Your task to perform on an android device: open wifi settings Image 0: 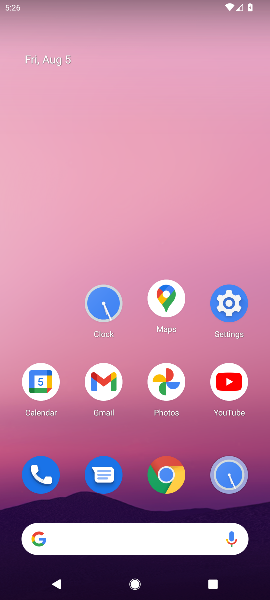
Step 0: click (239, 302)
Your task to perform on an android device: open wifi settings Image 1: 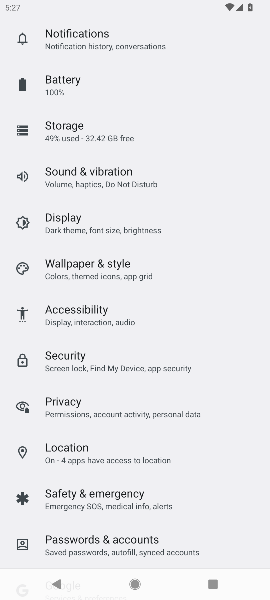
Step 1: drag from (214, 129) to (217, 456)
Your task to perform on an android device: open wifi settings Image 2: 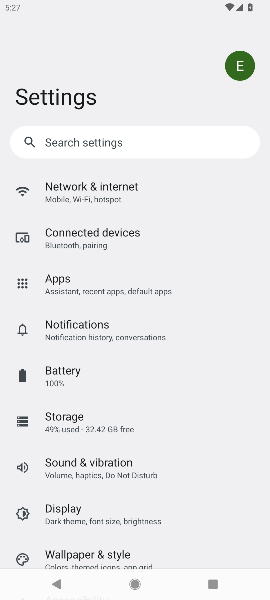
Step 2: click (92, 196)
Your task to perform on an android device: open wifi settings Image 3: 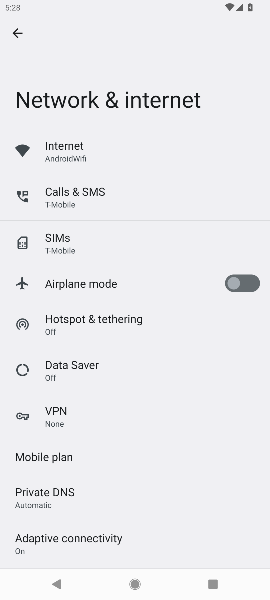
Step 3: task complete